Your task to perform on an android device: turn on javascript in the chrome app Image 0: 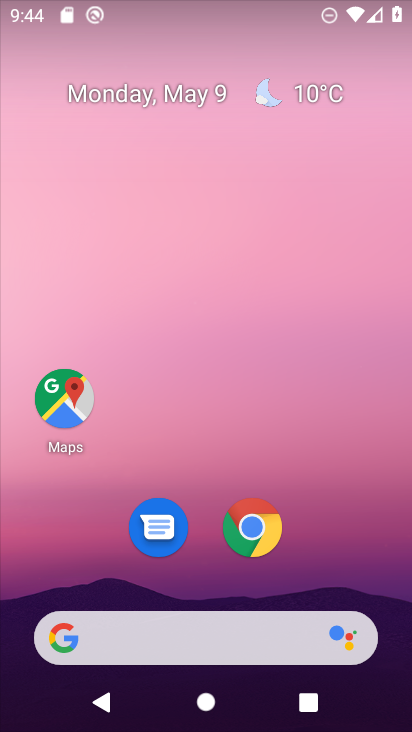
Step 0: click (263, 530)
Your task to perform on an android device: turn on javascript in the chrome app Image 1: 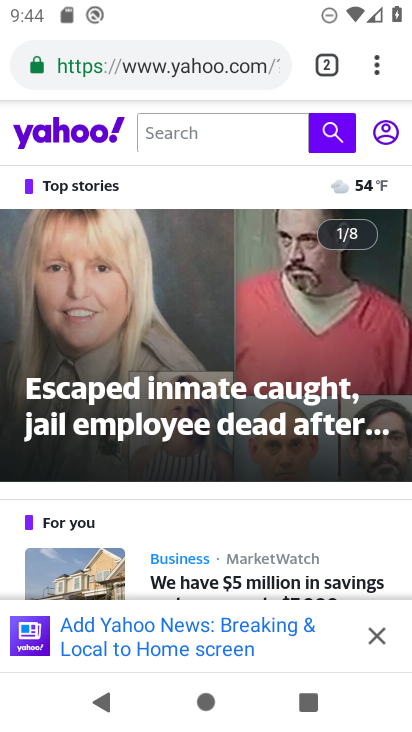
Step 1: click (372, 62)
Your task to perform on an android device: turn on javascript in the chrome app Image 2: 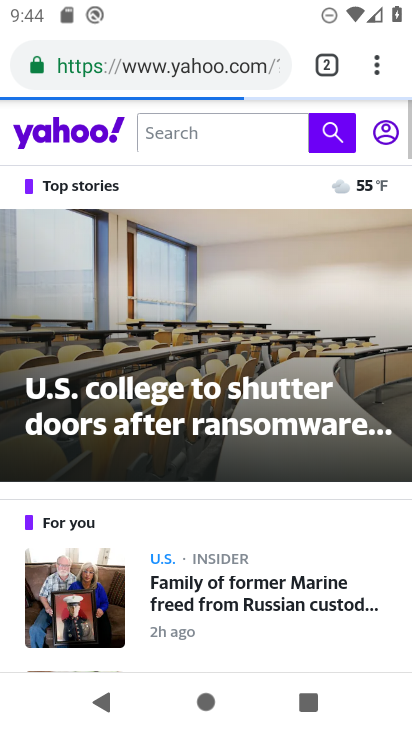
Step 2: click (379, 68)
Your task to perform on an android device: turn on javascript in the chrome app Image 3: 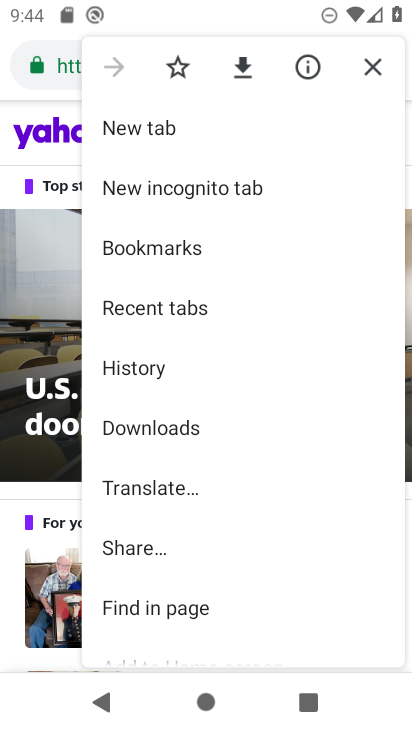
Step 3: drag from (150, 526) to (186, 258)
Your task to perform on an android device: turn on javascript in the chrome app Image 4: 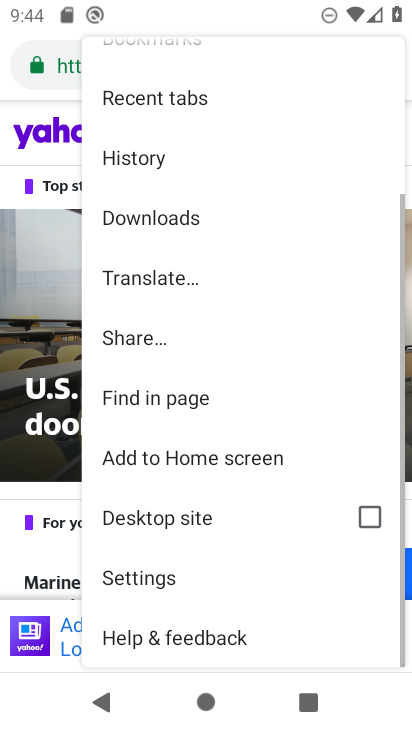
Step 4: click (159, 585)
Your task to perform on an android device: turn on javascript in the chrome app Image 5: 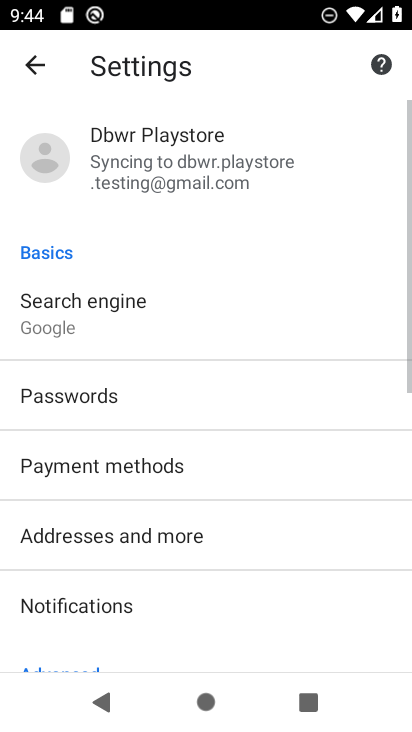
Step 5: drag from (116, 531) to (227, 148)
Your task to perform on an android device: turn on javascript in the chrome app Image 6: 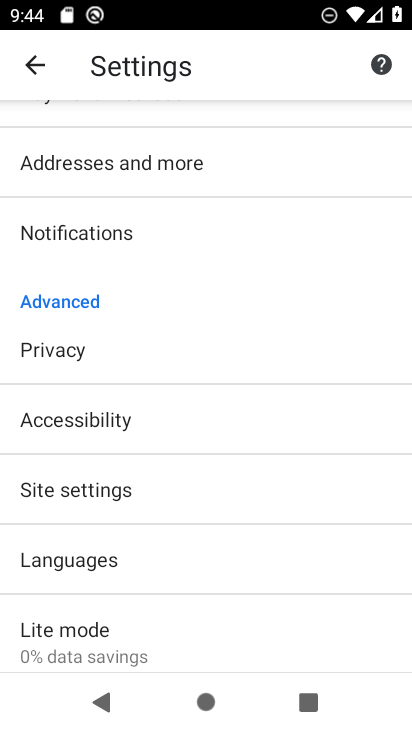
Step 6: click (92, 490)
Your task to perform on an android device: turn on javascript in the chrome app Image 7: 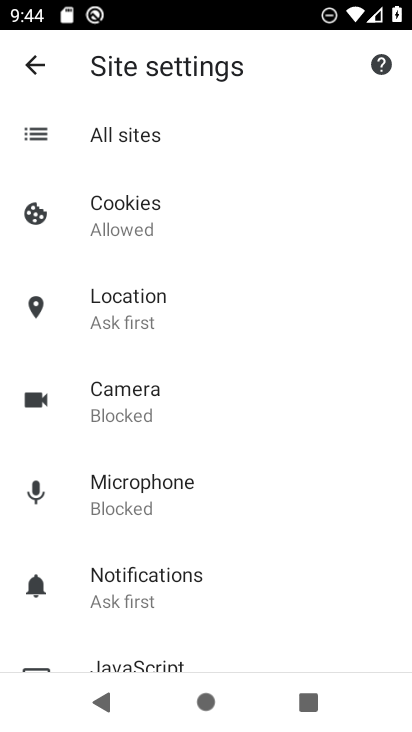
Step 7: drag from (92, 599) to (171, 299)
Your task to perform on an android device: turn on javascript in the chrome app Image 8: 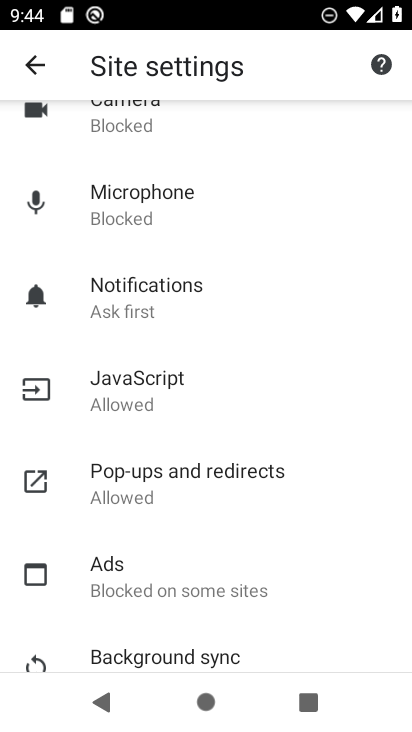
Step 8: click (149, 367)
Your task to perform on an android device: turn on javascript in the chrome app Image 9: 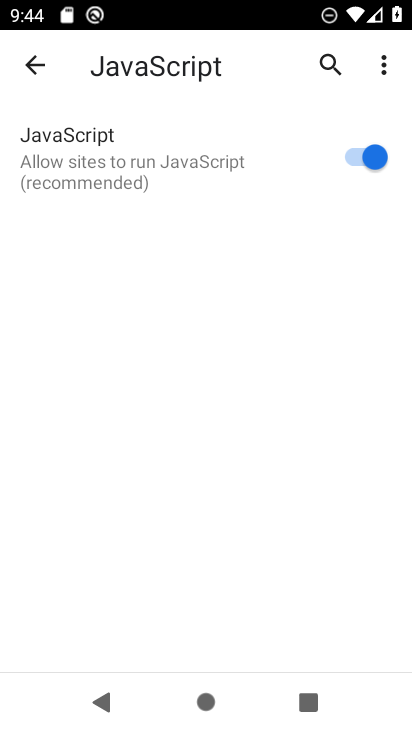
Step 9: task complete